Your task to perform on an android device: turn off airplane mode Image 0: 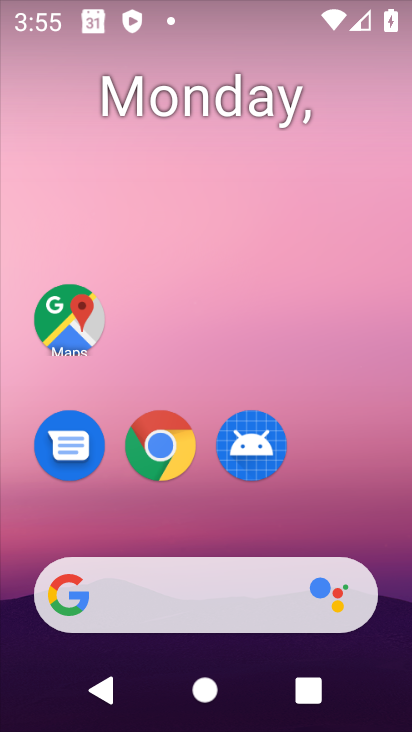
Step 0: drag from (269, 1) to (179, 607)
Your task to perform on an android device: turn off airplane mode Image 1: 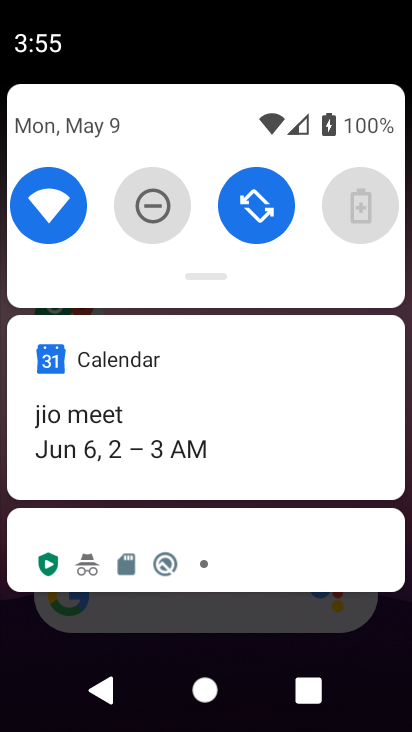
Step 1: task complete